Your task to perform on an android device: Open Chrome and go to the settings page Image 0: 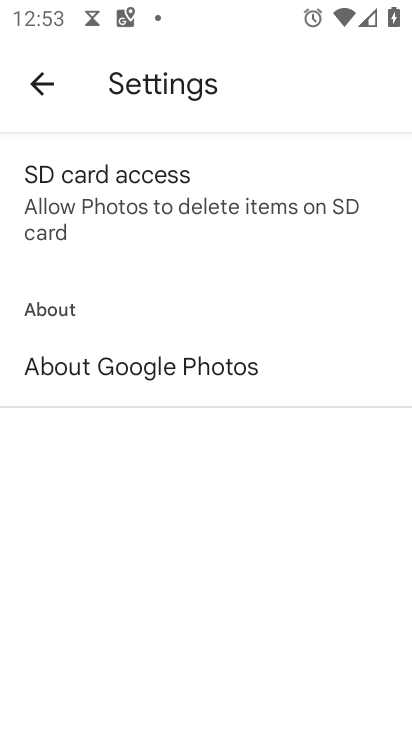
Step 0: press home button
Your task to perform on an android device: Open Chrome and go to the settings page Image 1: 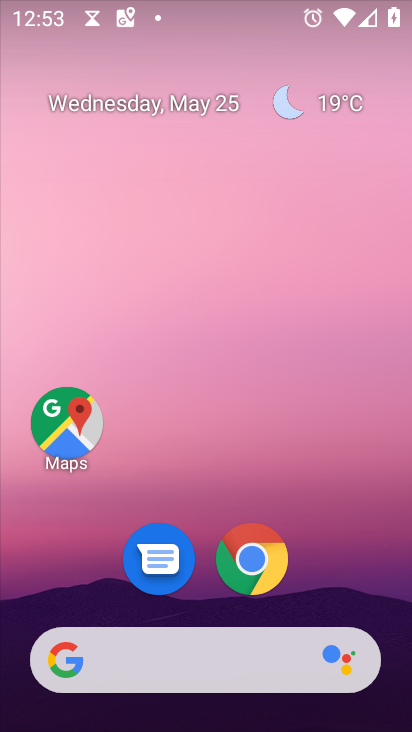
Step 1: drag from (365, 488) to (278, 18)
Your task to perform on an android device: Open Chrome and go to the settings page Image 2: 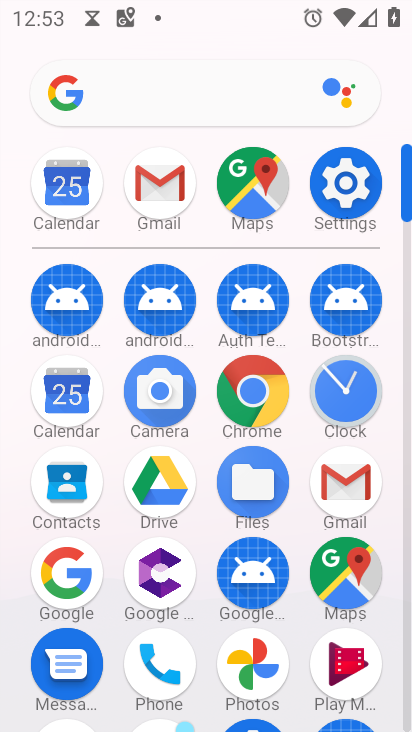
Step 2: click (257, 395)
Your task to perform on an android device: Open Chrome and go to the settings page Image 3: 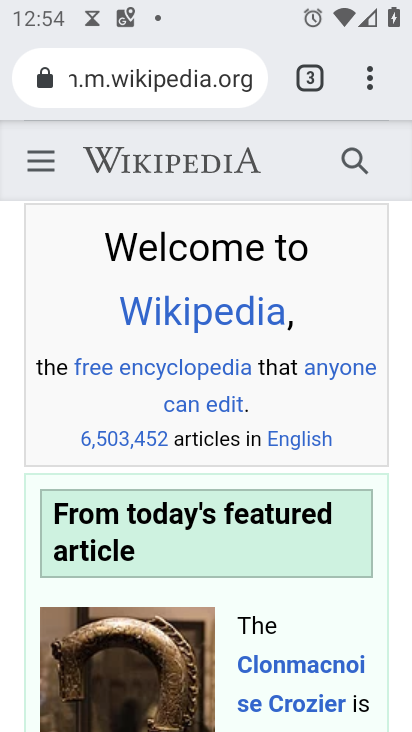
Step 3: task complete